Your task to perform on an android device: delete the emails in spam in the gmail app Image 0: 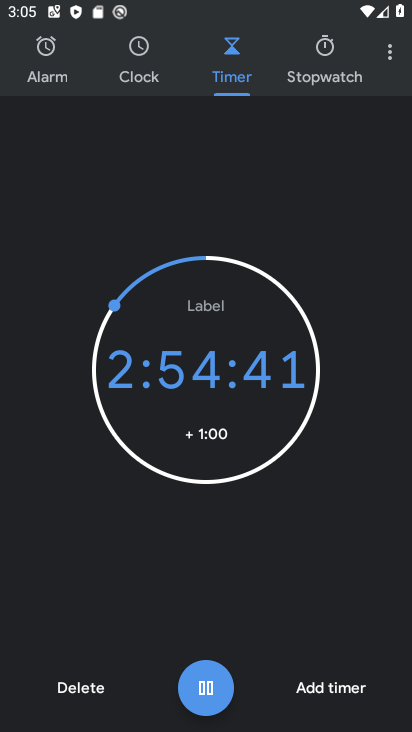
Step 0: press home button
Your task to perform on an android device: delete the emails in spam in the gmail app Image 1: 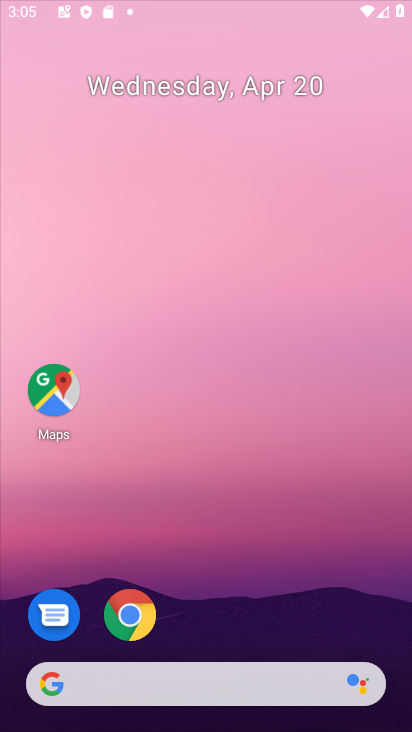
Step 1: drag from (168, 629) to (288, 155)
Your task to perform on an android device: delete the emails in spam in the gmail app Image 2: 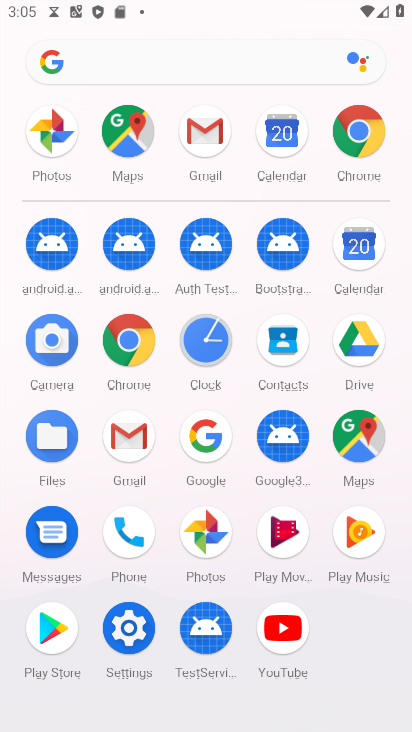
Step 2: click (120, 434)
Your task to perform on an android device: delete the emails in spam in the gmail app Image 3: 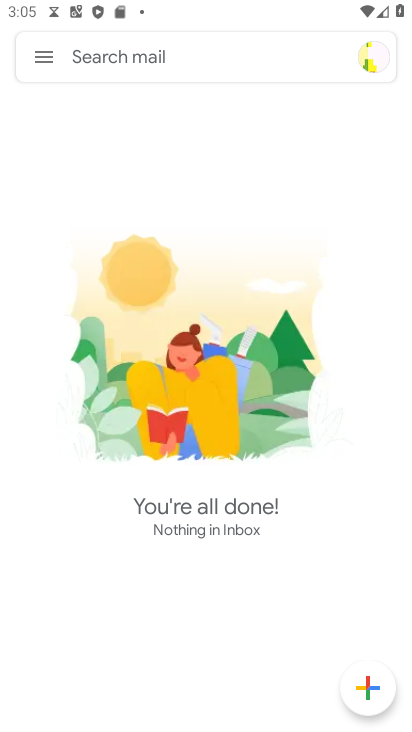
Step 3: click (36, 53)
Your task to perform on an android device: delete the emails in spam in the gmail app Image 4: 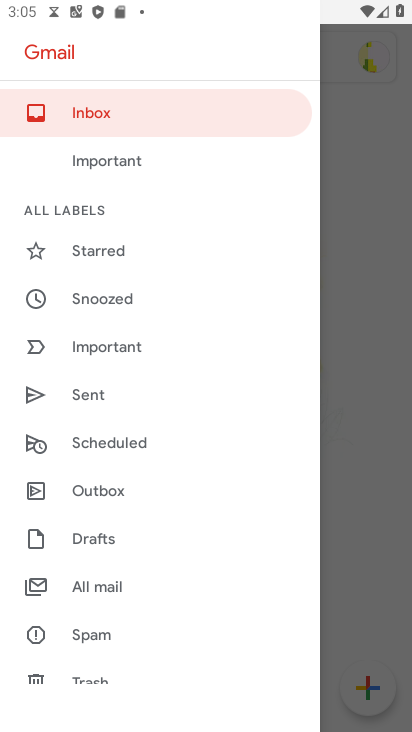
Step 4: click (105, 631)
Your task to perform on an android device: delete the emails in spam in the gmail app Image 5: 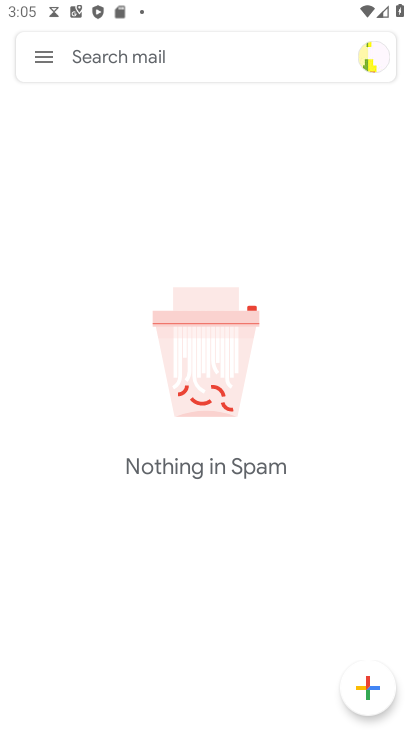
Step 5: task complete